Your task to perform on an android device: Go to Reddit.com Image 0: 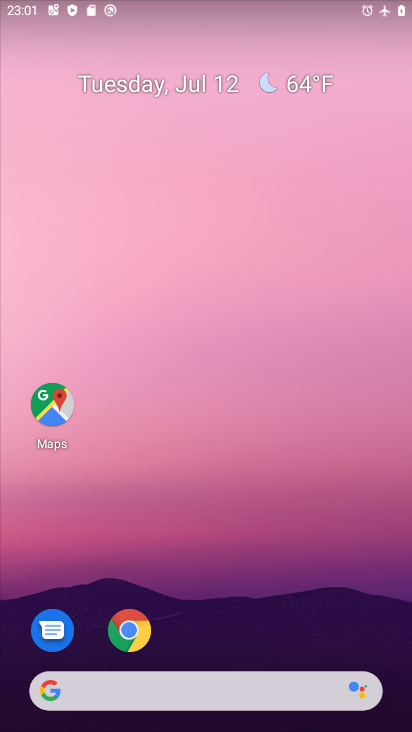
Step 0: click (128, 619)
Your task to perform on an android device: Go to Reddit.com Image 1: 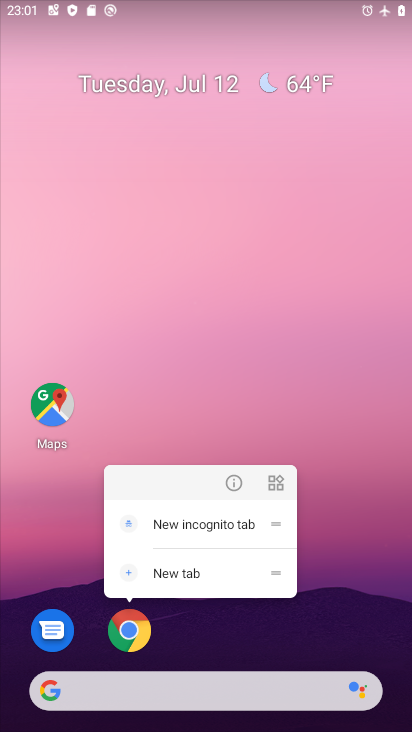
Step 1: click (129, 636)
Your task to perform on an android device: Go to Reddit.com Image 2: 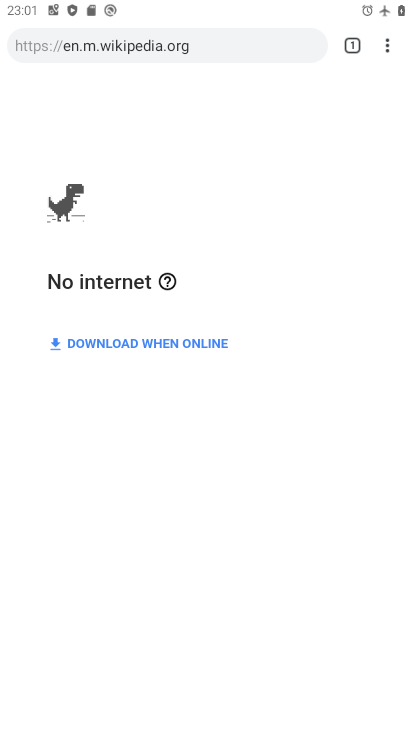
Step 2: click (341, 52)
Your task to perform on an android device: Go to Reddit.com Image 3: 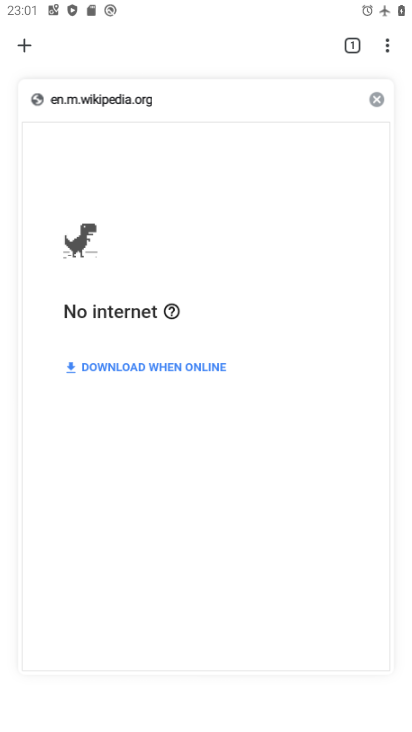
Step 3: click (26, 43)
Your task to perform on an android device: Go to Reddit.com Image 4: 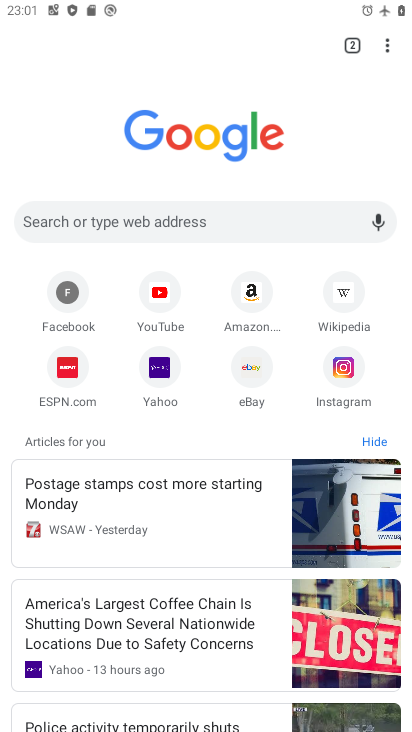
Step 4: type "Reddit.com"
Your task to perform on an android device: Go to Reddit.com Image 5: 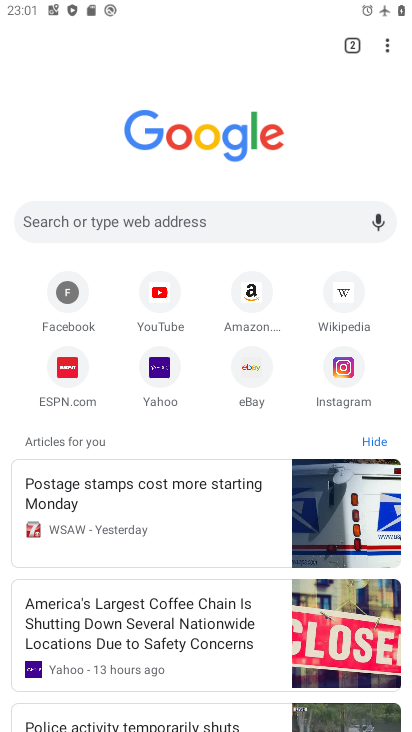
Step 5: click (85, 219)
Your task to perform on an android device: Go to Reddit.com Image 6: 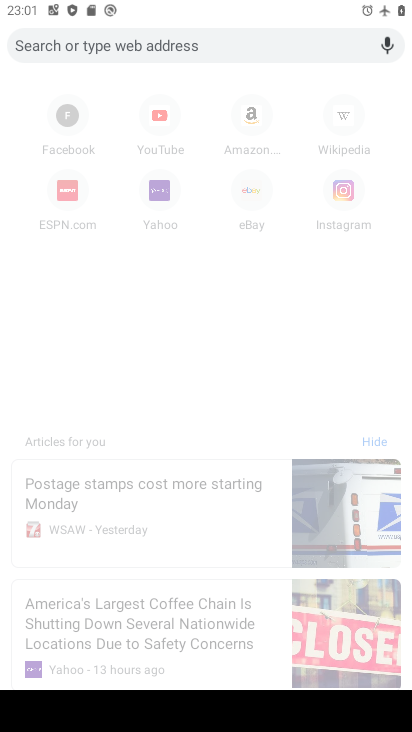
Step 6: type "Reddit.com"
Your task to perform on an android device: Go to Reddit.com Image 7: 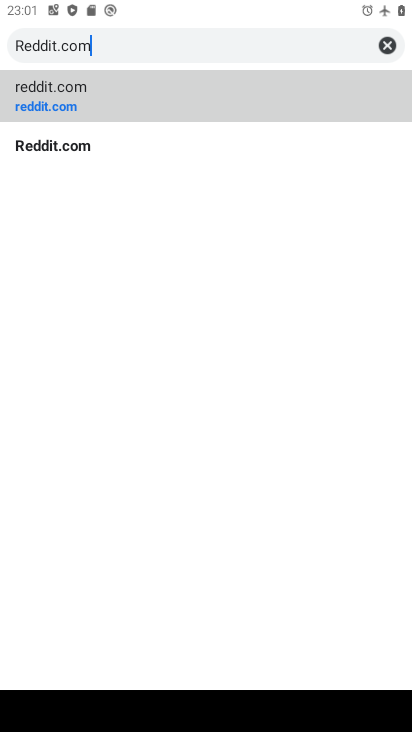
Step 7: type ""
Your task to perform on an android device: Go to Reddit.com Image 8: 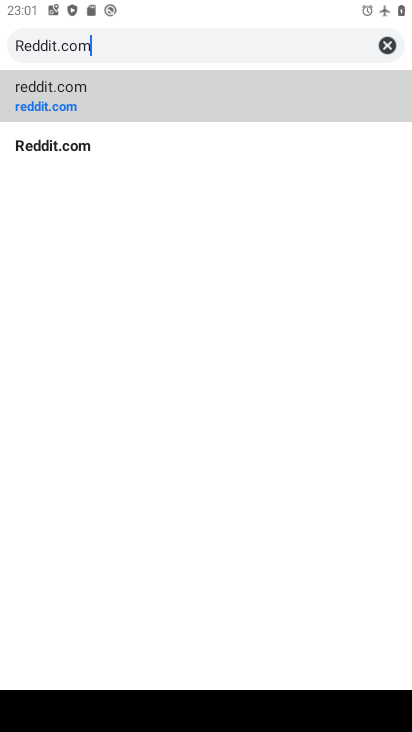
Step 8: click (348, 83)
Your task to perform on an android device: Go to Reddit.com Image 9: 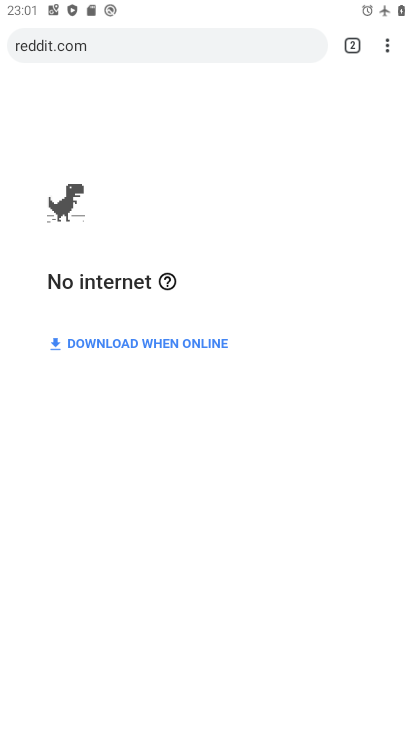
Step 9: task complete